Your task to perform on an android device: turn on javascript in the chrome app Image 0: 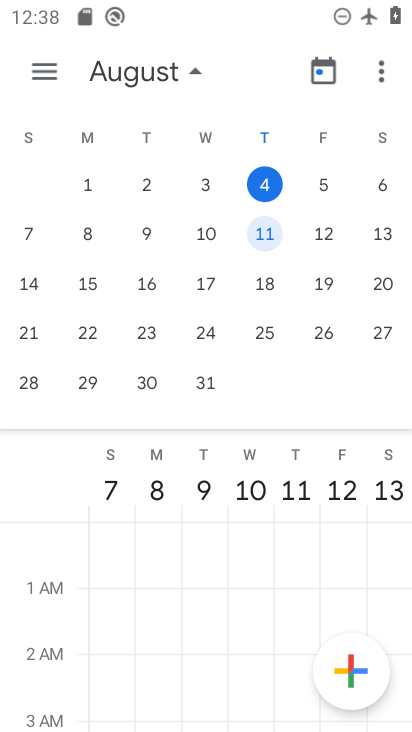
Step 0: press home button
Your task to perform on an android device: turn on javascript in the chrome app Image 1: 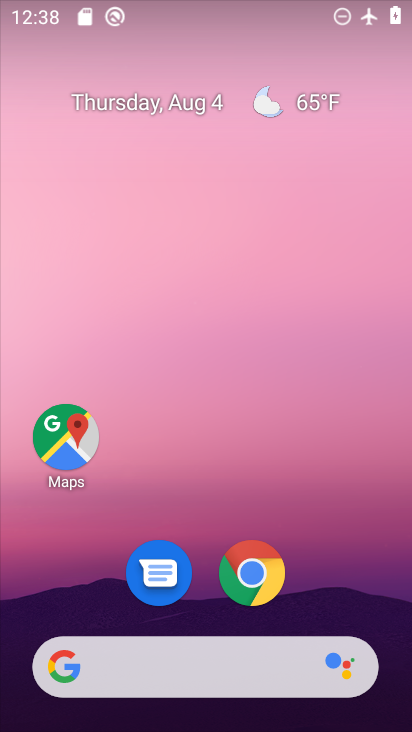
Step 1: drag from (342, 555) to (303, 84)
Your task to perform on an android device: turn on javascript in the chrome app Image 2: 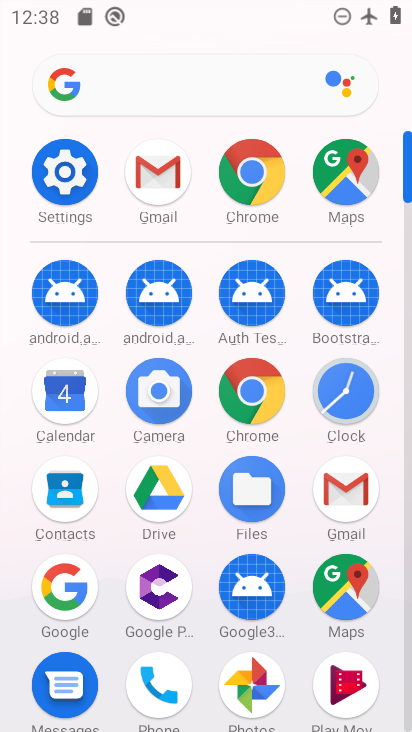
Step 2: click (255, 392)
Your task to perform on an android device: turn on javascript in the chrome app Image 3: 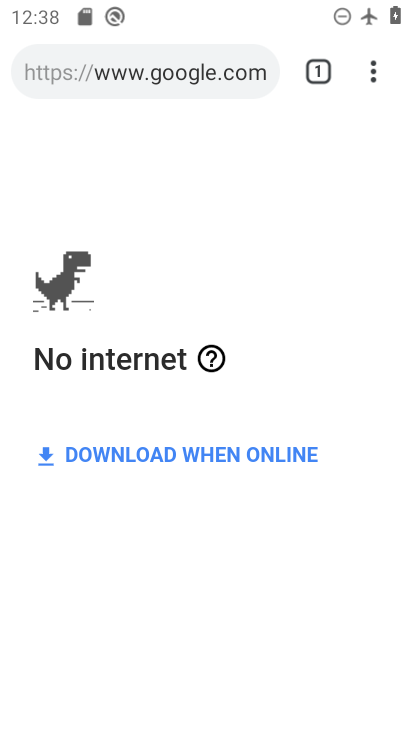
Step 3: drag from (377, 67) to (187, 565)
Your task to perform on an android device: turn on javascript in the chrome app Image 4: 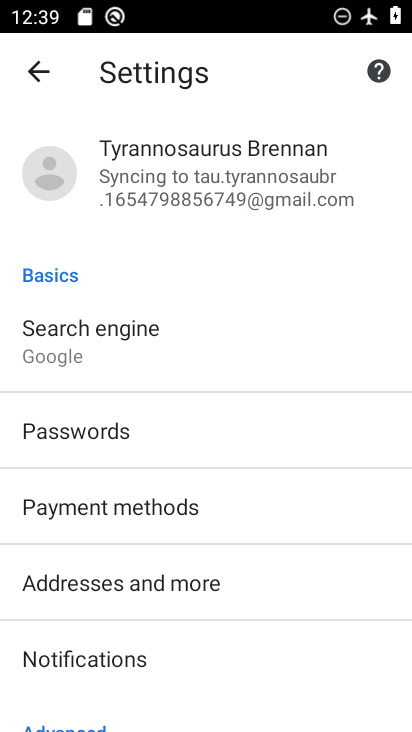
Step 4: drag from (336, 550) to (362, 152)
Your task to perform on an android device: turn on javascript in the chrome app Image 5: 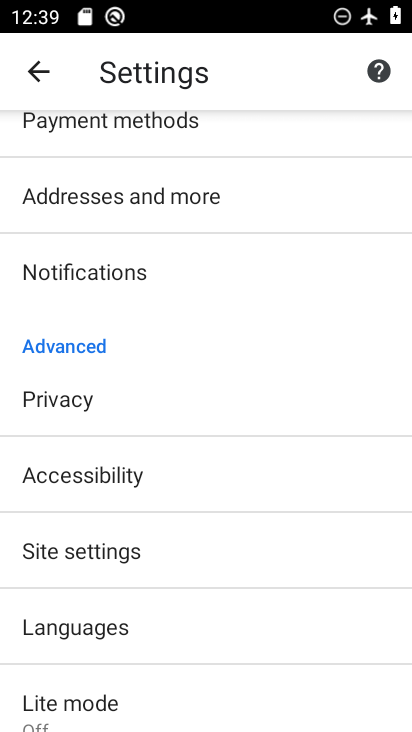
Step 5: click (115, 547)
Your task to perform on an android device: turn on javascript in the chrome app Image 6: 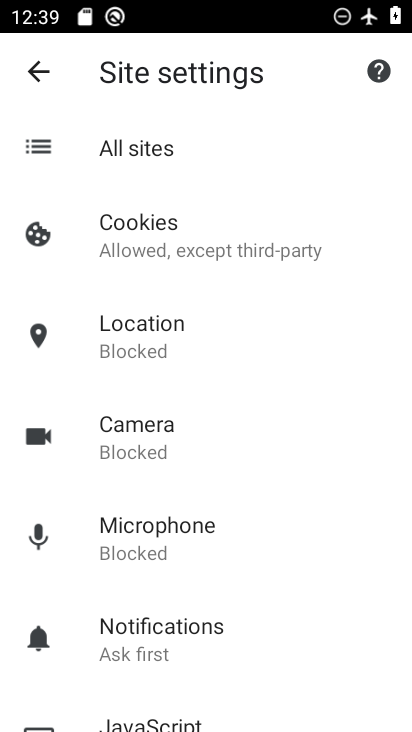
Step 6: drag from (271, 624) to (293, 230)
Your task to perform on an android device: turn on javascript in the chrome app Image 7: 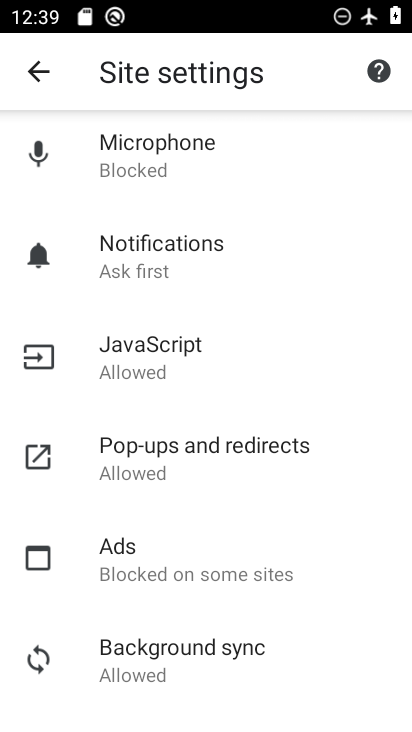
Step 7: click (115, 353)
Your task to perform on an android device: turn on javascript in the chrome app Image 8: 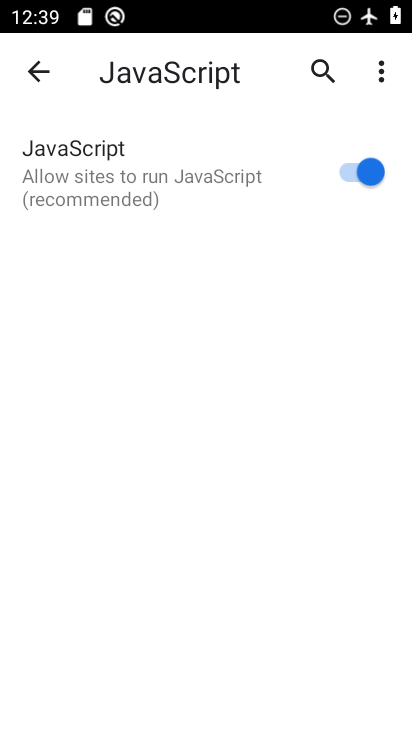
Step 8: task complete